Your task to perform on an android device: Open internet settings Image 0: 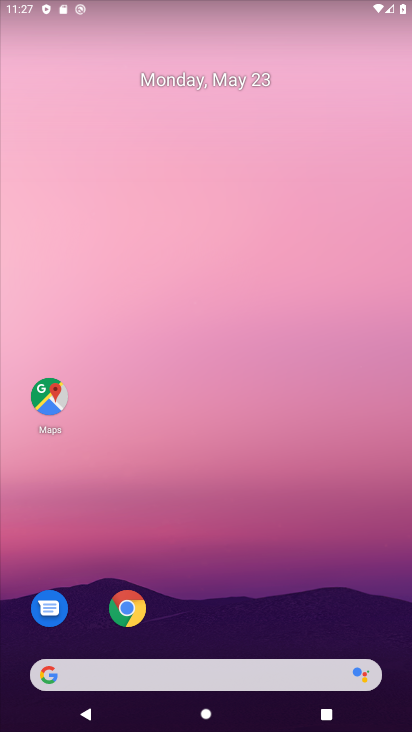
Step 0: drag from (203, 644) to (242, 31)
Your task to perform on an android device: Open internet settings Image 1: 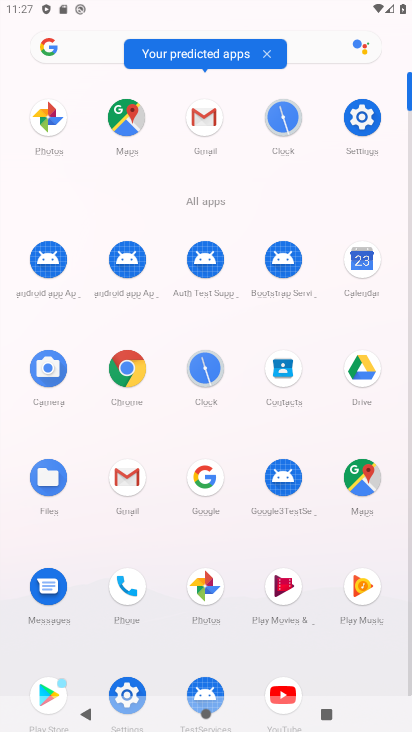
Step 1: click (360, 113)
Your task to perform on an android device: Open internet settings Image 2: 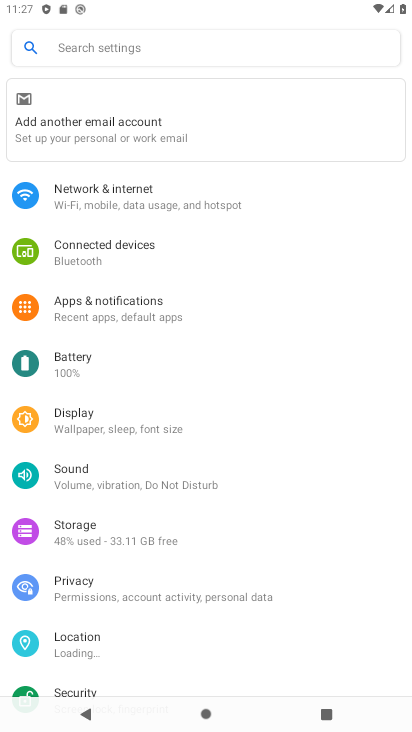
Step 2: click (158, 187)
Your task to perform on an android device: Open internet settings Image 3: 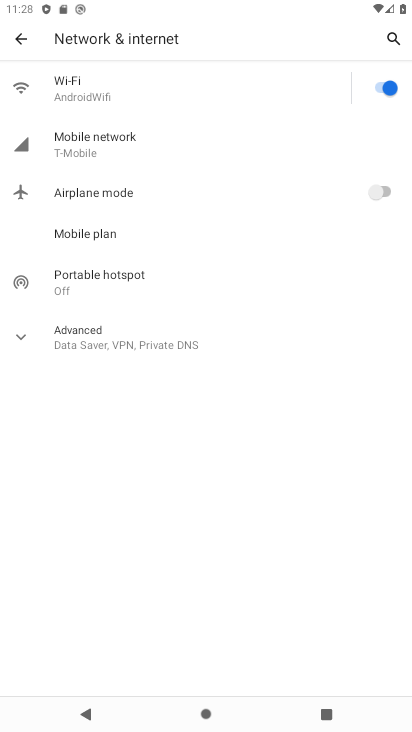
Step 3: click (22, 330)
Your task to perform on an android device: Open internet settings Image 4: 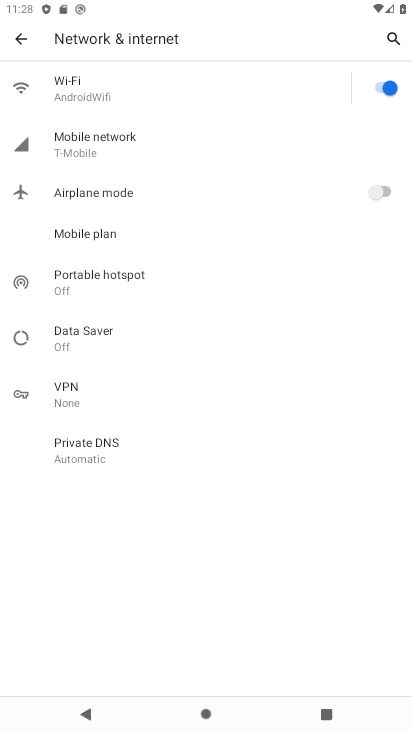
Step 4: task complete